Your task to perform on an android device: Open Wikipedia Image 0: 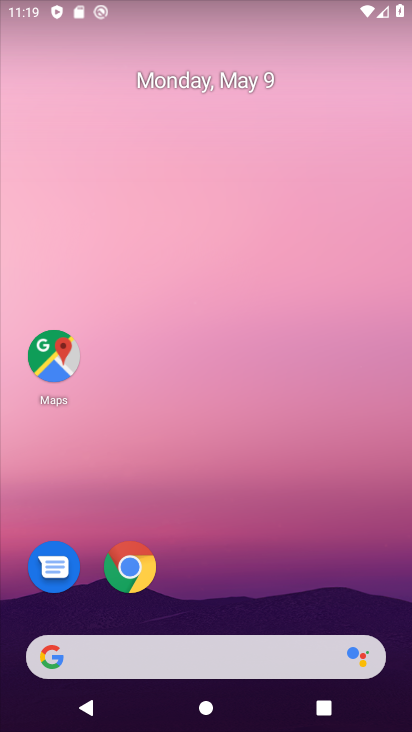
Step 0: click (153, 569)
Your task to perform on an android device: Open Wikipedia Image 1: 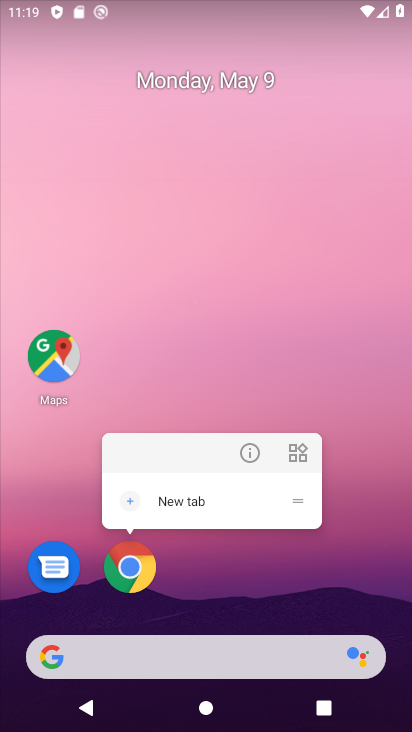
Step 1: click (143, 574)
Your task to perform on an android device: Open Wikipedia Image 2: 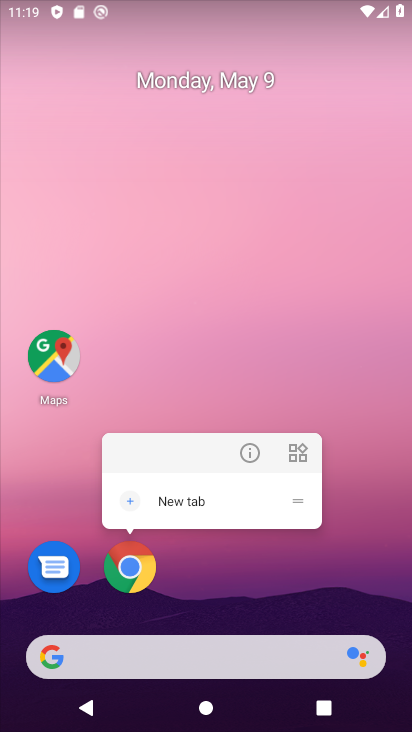
Step 2: click (134, 572)
Your task to perform on an android device: Open Wikipedia Image 3: 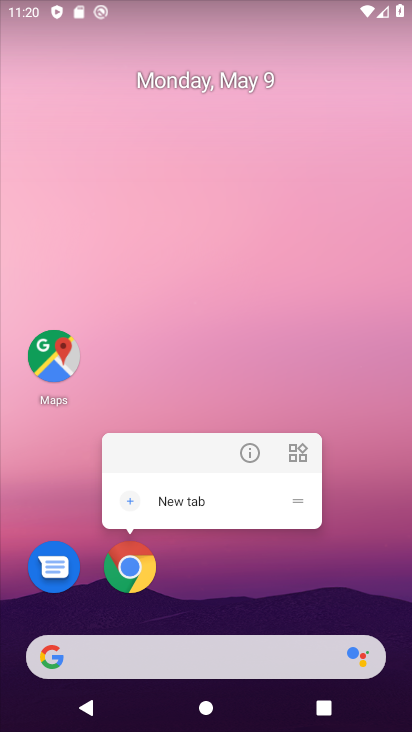
Step 3: click (134, 581)
Your task to perform on an android device: Open Wikipedia Image 4: 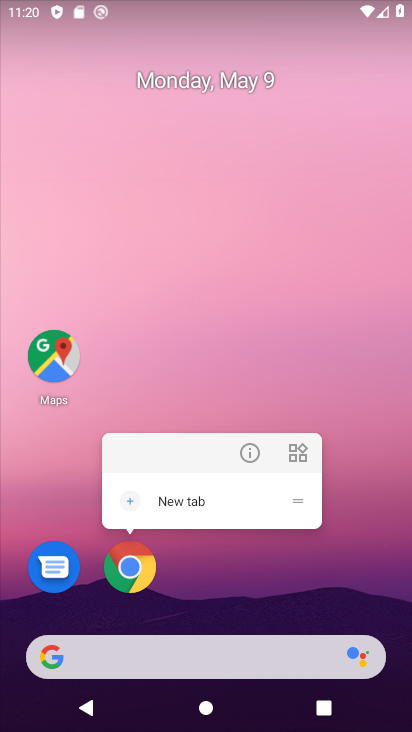
Step 4: click (133, 580)
Your task to perform on an android device: Open Wikipedia Image 5: 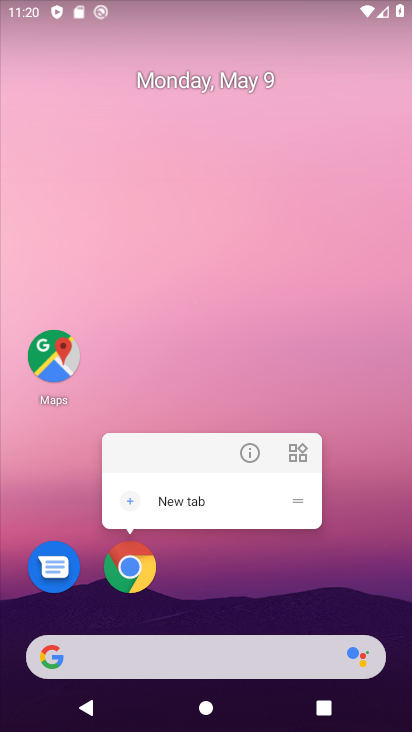
Step 5: click (138, 568)
Your task to perform on an android device: Open Wikipedia Image 6: 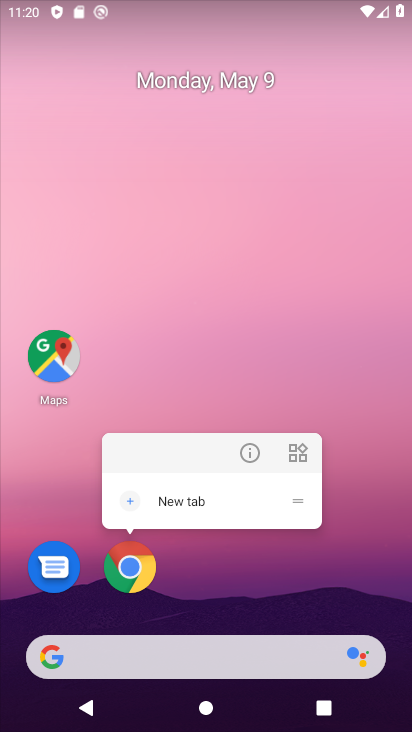
Step 6: click (132, 565)
Your task to perform on an android device: Open Wikipedia Image 7: 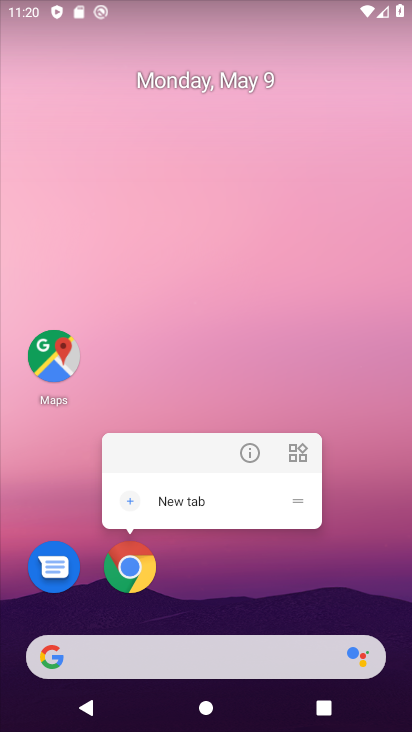
Step 7: click (114, 549)
Your task to perform on an android device: Open Wikipedia Image 8: 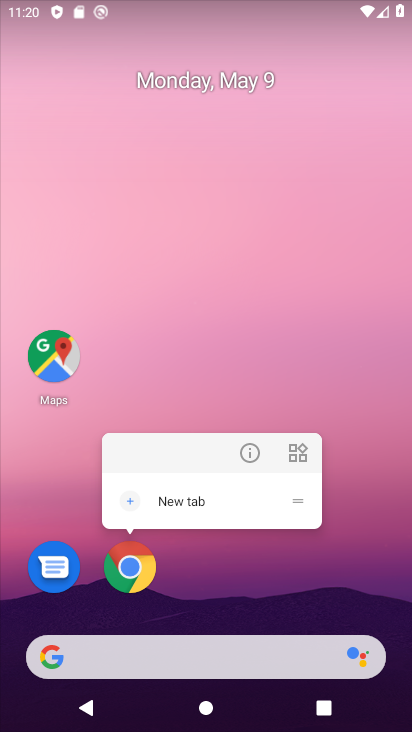
Step 8: click (126, 574)
Your task to perform on an android device: Open Wikipedia Image 9: 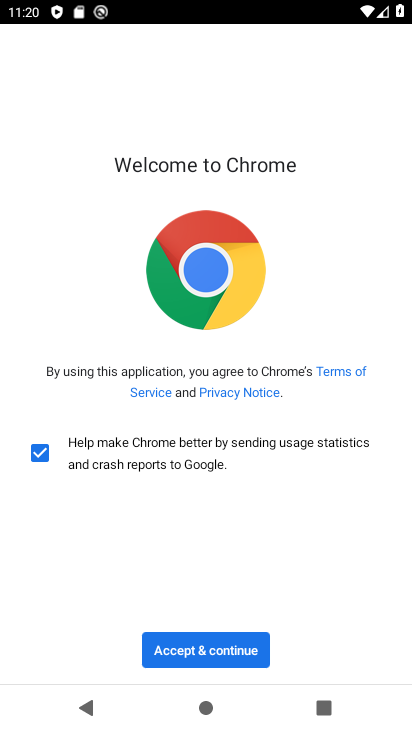
Step 9: click (242, 661)
Your task to perform on an android device: Open Wikipedia Image 10: 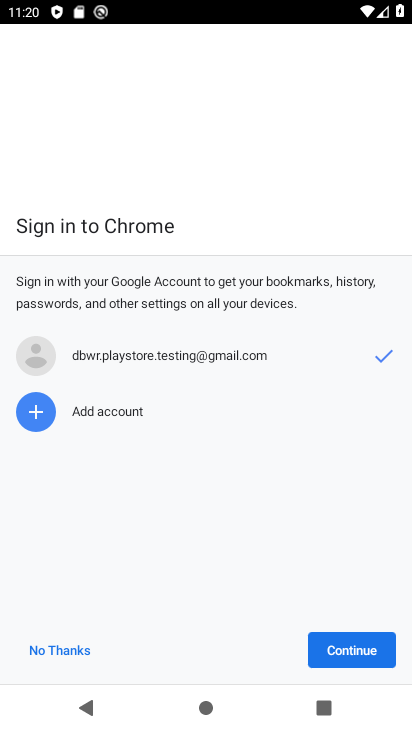
Step 10: click (320, 651)
Your task to perform on an android device: Open Wikipedia Image 11: 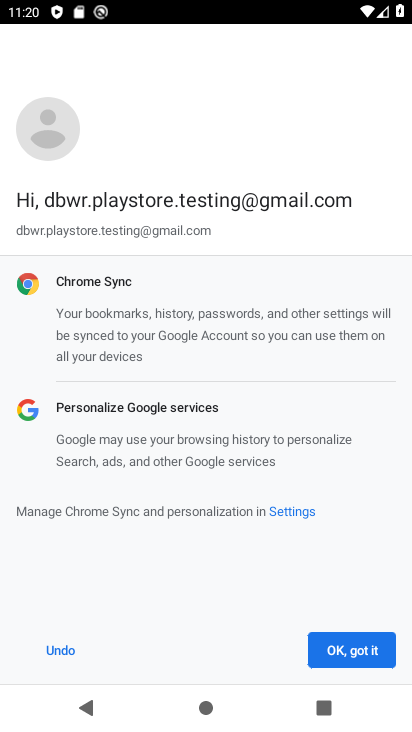
Step 11: click (352, 638)
Your task to perform on an android device: Open Wikipedia Image 12: 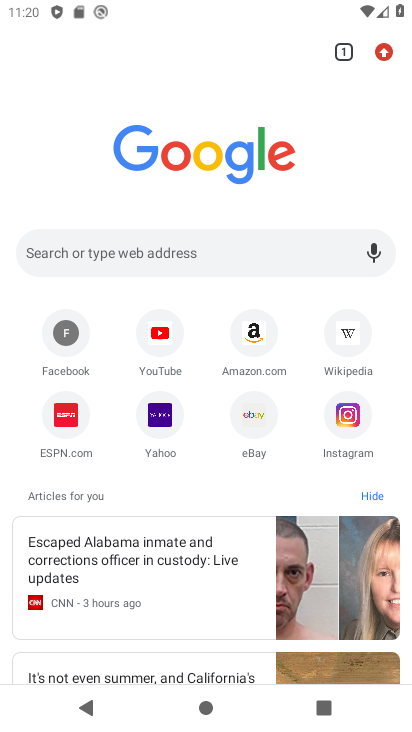
Step 12: click (334, 336)
Your task to perform on an android device: Open Wikipedia Image 13: 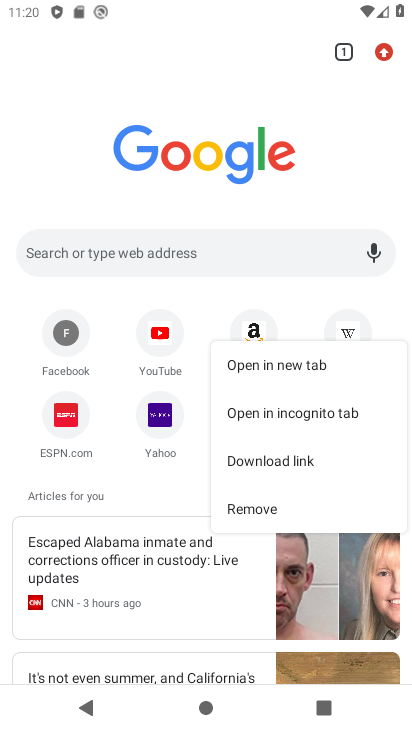
Step 13: click (352, 325)
Your task to perform on an android device: Open Wikipedia Image 14: 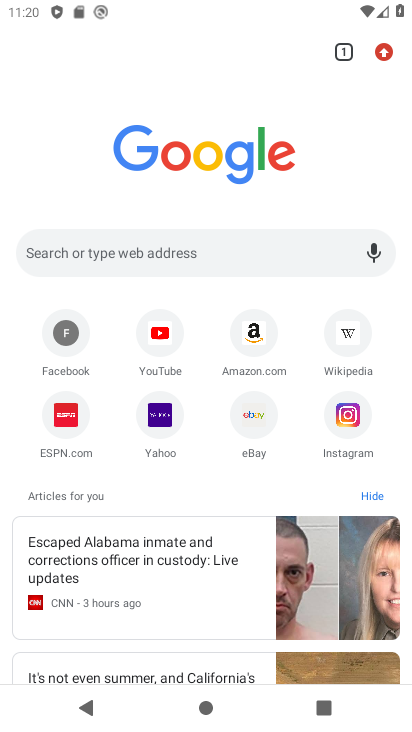
Step 14: click (348, 337)
Your task to perform on an android device: Open Wikipedia Image 15: 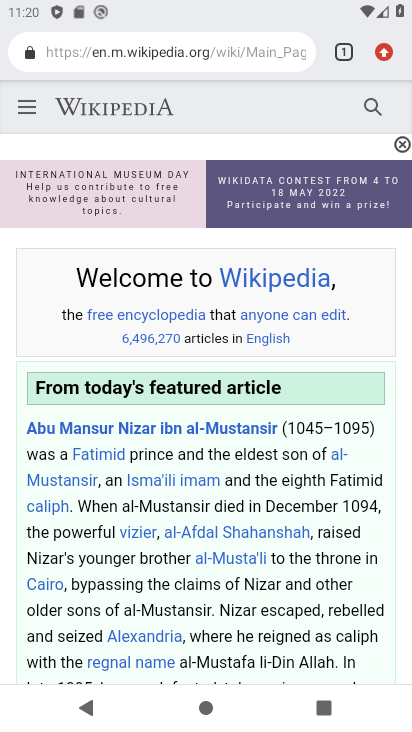
Step 15: task complete